Your task to perform on an android device: Go to privacy settings Image 0: 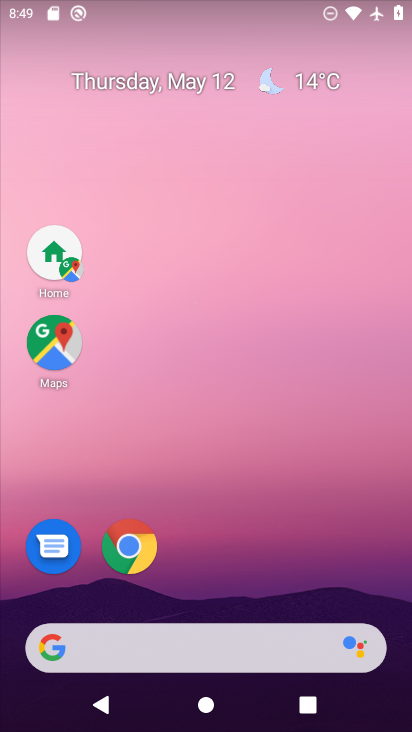
Step 0: drag from (214, 645) to (295, 183)
Your task to perform on an android device: Go to privacy settings Image 1: 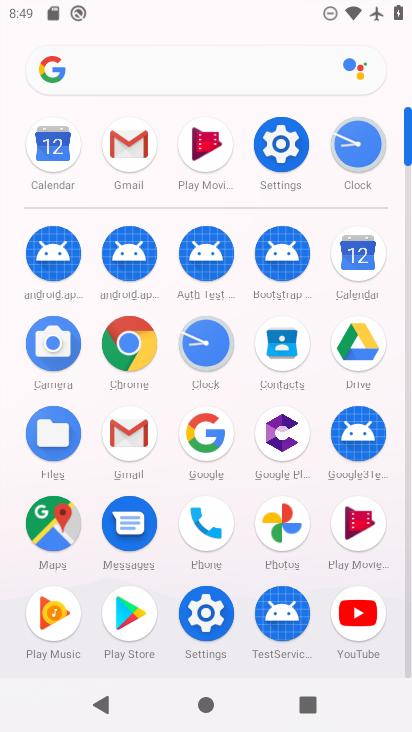
Step 1: click (278, 148)
Your task to perform on an android device: Go to privacy settings Image 2: 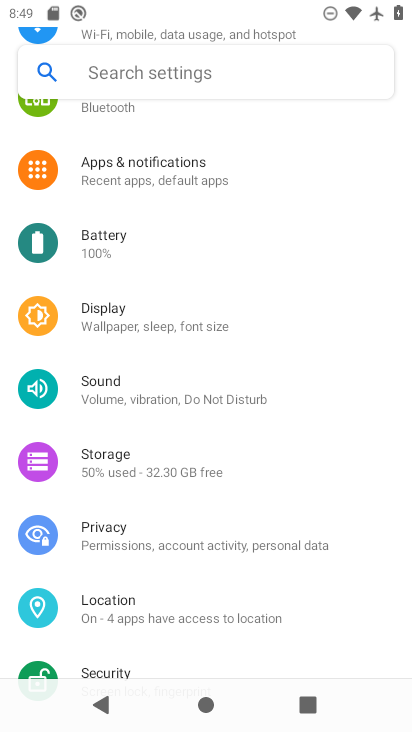
Step 2: click (127, 539)
Your task to perform on an android device: Go to privacy settings Image 3: 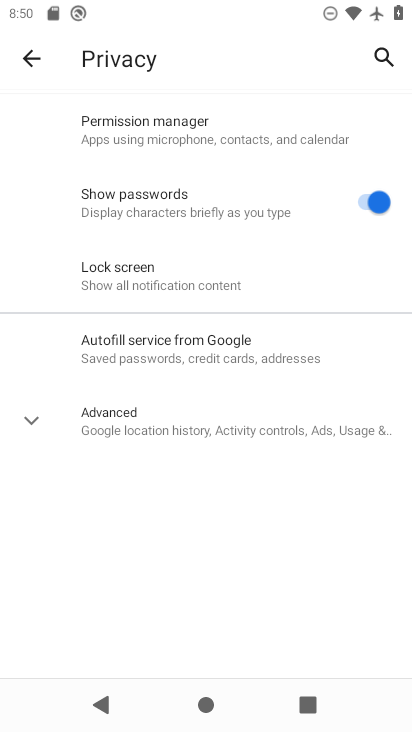
Step 3: task complete